Your task to perform on an android device: Go to ESPN.com Image 0: 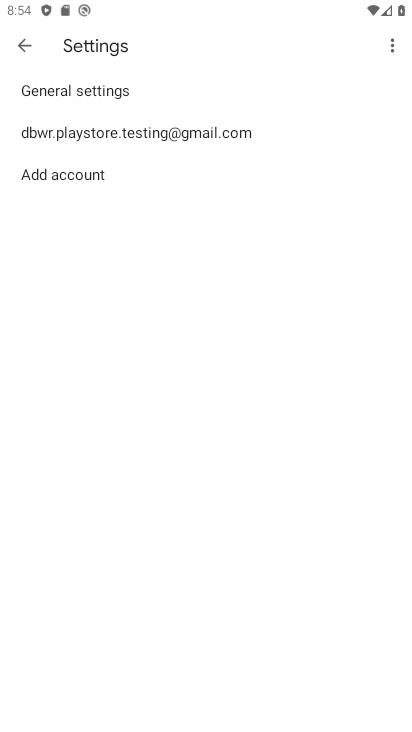
Step 0: press home button
Your task to perform on an android device: Go to ESPN.com Image 1: 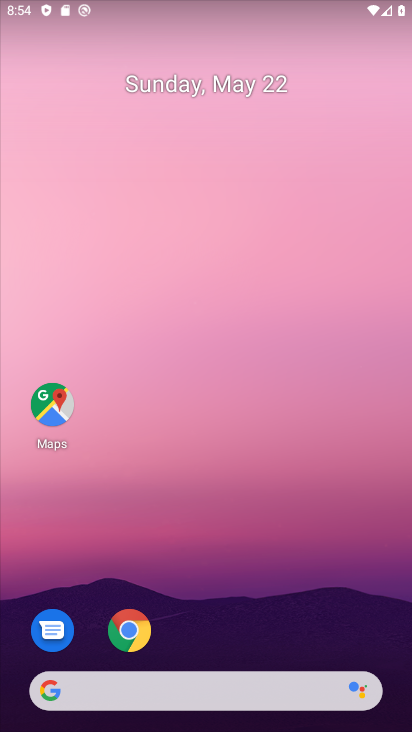
Step 1: drag from (383, 417) to (373, 102)
Your task to perform on an android device: Go to ESPN.com Image 2: 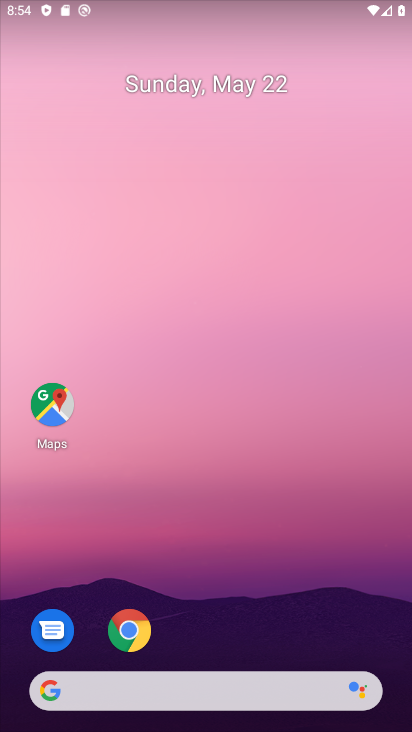
Step 2: drag from (397, 684) to (366, 156)
Your task to perform on an android device: Go to ESPN.com Image 3: 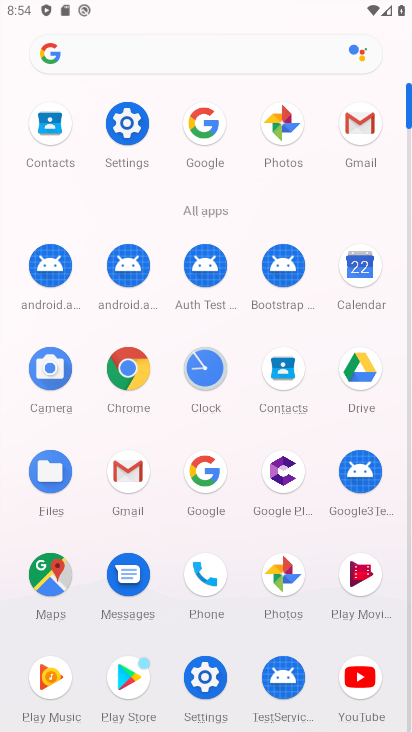
Step 3: click (129, 382)
Your task to perform on an android device: Go to ESPN.com Image 4: 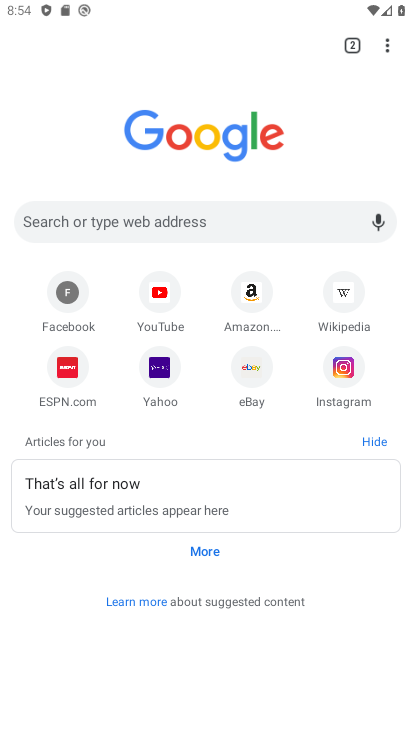
Step 4: click (198, 228)
Your task to perform on an android device: Go to ESPN.com Image 5: 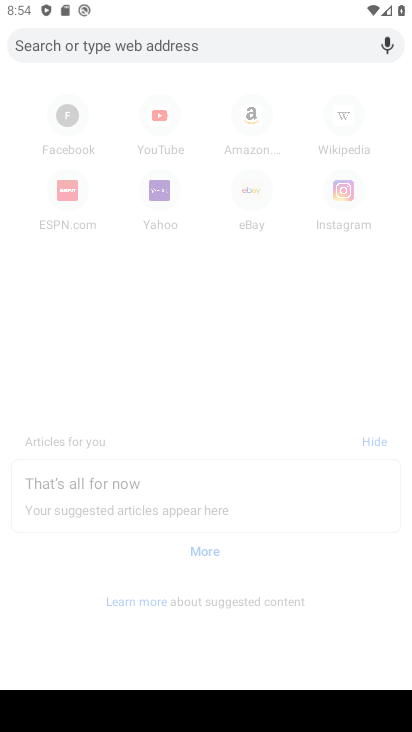
Step 5: type "ESPN.com"
Your task to perform on an android device: Go to ESPN.com Image 6: 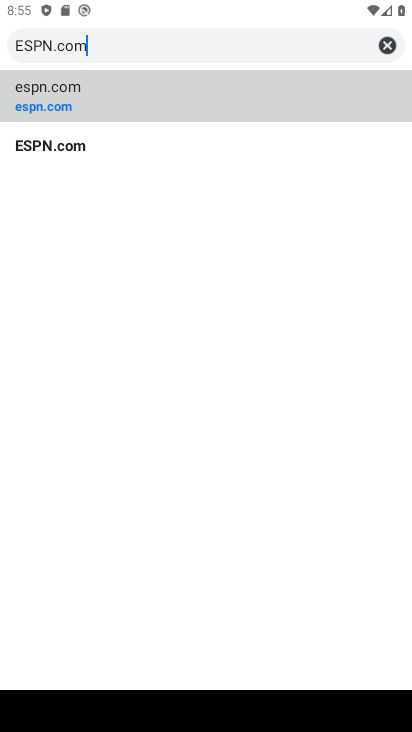
Step 6: click (26, 149)
Your task to perform on an android device: Go to ESPN.com Image 7: 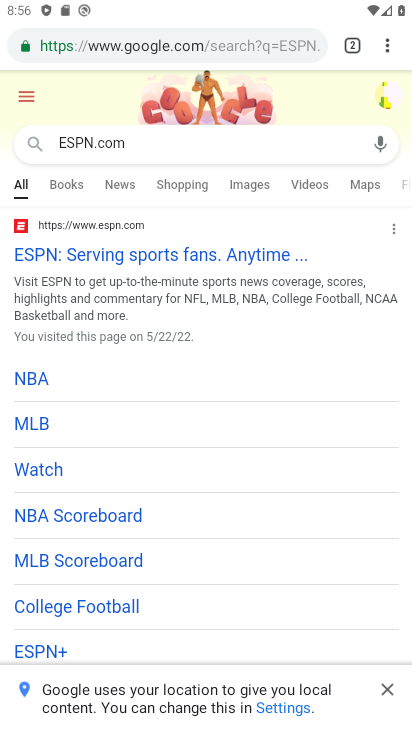
Step 7: task complete